Your task to perform on an android device: turn off priority inbox in the gmail app Image 0: 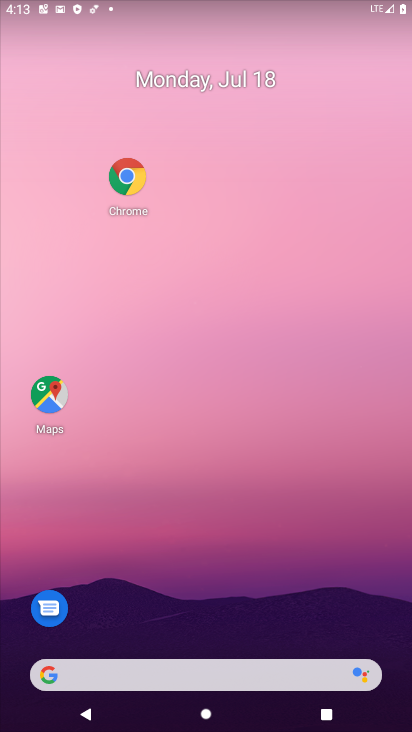
Step 0: drag from (218, 644) to (263, 180)
Your task to perform on an android device: turn off priority inbox in the gmail app Image 1: 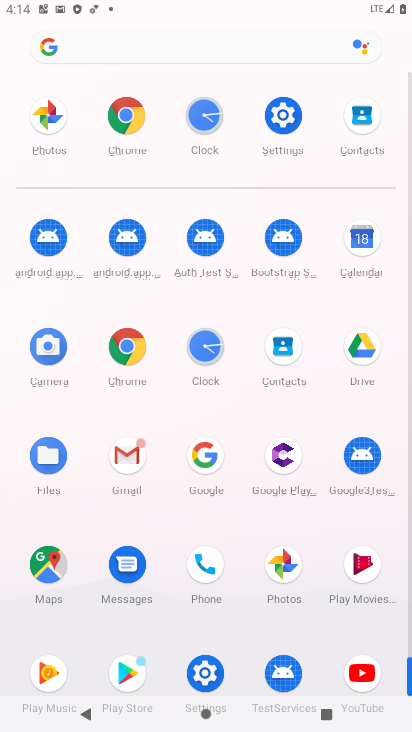
Step 1: click (129, 463)
Your task to perform on an android device: turn off priority inbox in the gmail app Image 2: 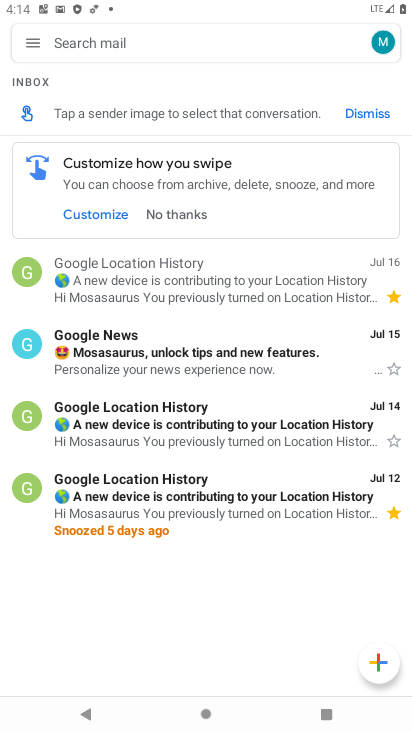
Step 2: click (32, 38)
Your task to perform on an android device: turn off priority inbox in the gmail app Image 3: 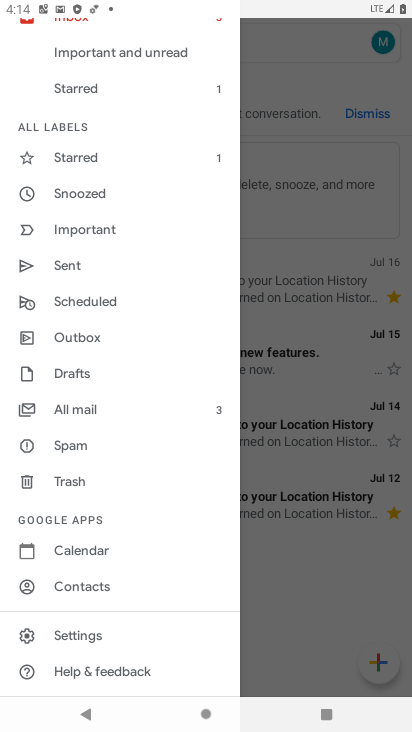
Step 3: click (82, 640)
Your task to perform on an android device: turn off priority inbox in the gmail app Image 4: 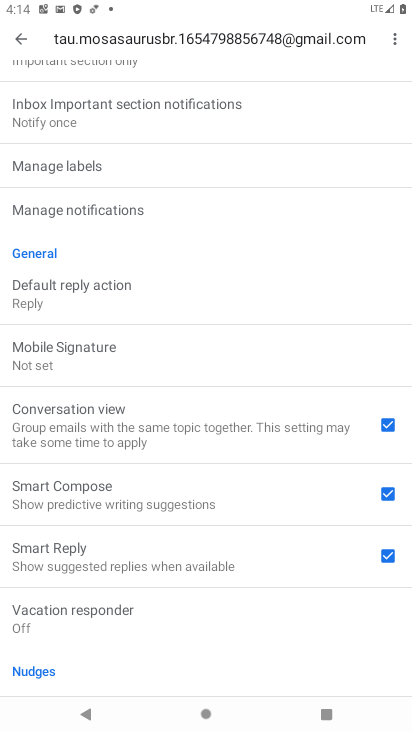
Step 4: drag from (122, 587) to (155, 345)
Your task to perform on an android device: turn off priority inbox in the gmail app Image 5: 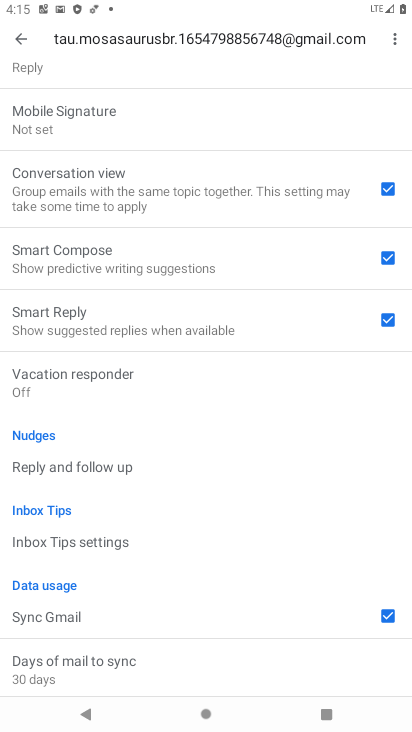
Step 5: drag from (169, 449) to (119, 724)
Your task to perform on an android device: turn off priority inbox in the gmail app Image 6: 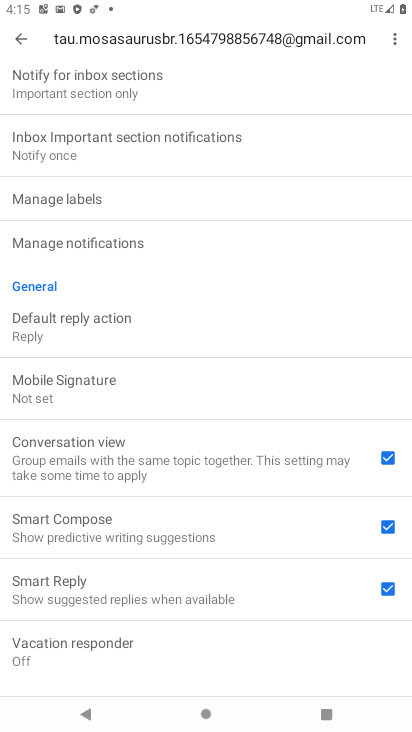
Step 6: drag from (151, 263) to (93, 624)
Your task to perform on an android device: turn off priority inbox in the gmail app Image 7: 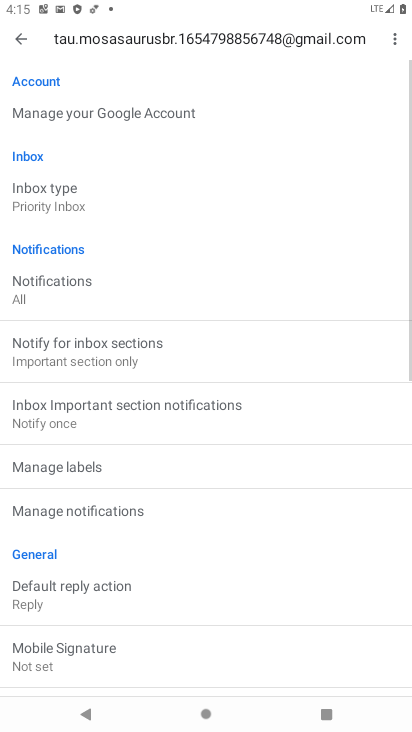
Step 7: click (72, 207)
Your task to perform on an android device: turn off priority inbox in the gmail app Image 8: 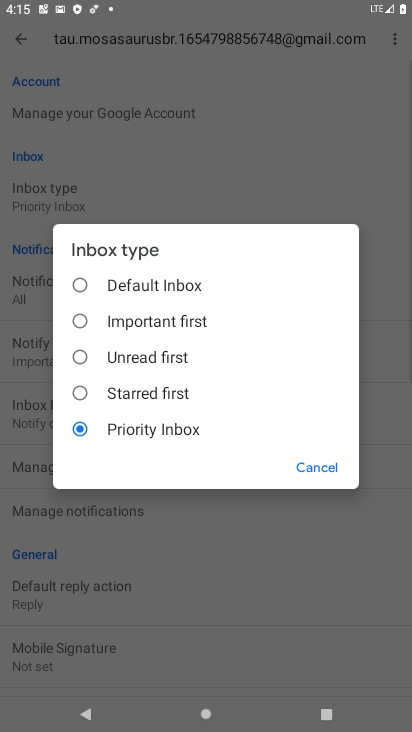
Step 8: click (137, 284)
Your task to perform on an android device: turn off priority inbox in the gmail app Image 9: 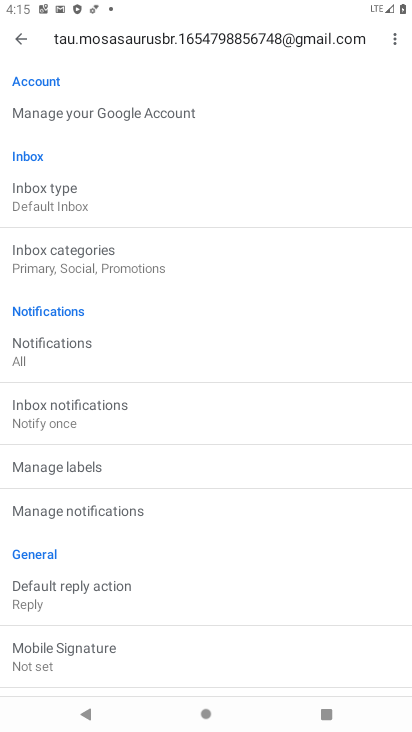
Step 9: task complete